Your task to perform on an android device: Open Maps and search for coffee Image 0: 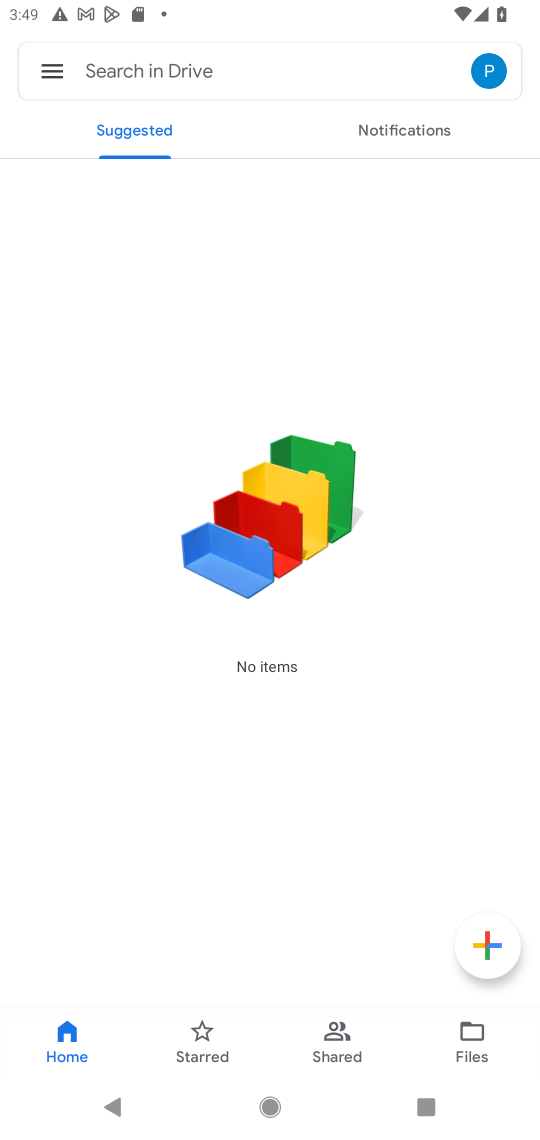
Step 0: press home button
Your task to perform on an android device: Open Maps and search for coffee Image 1: 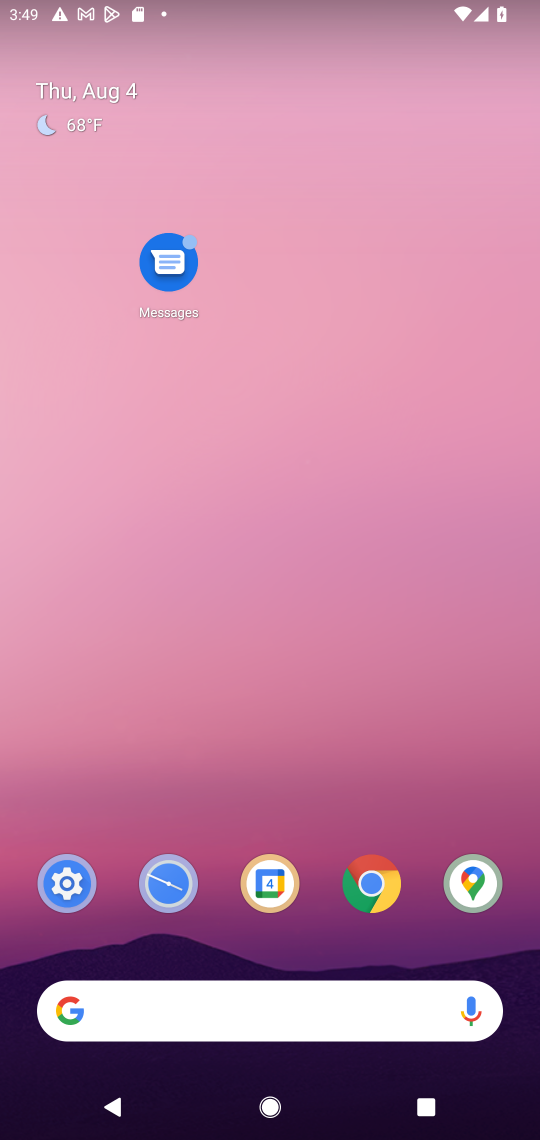
Step 1: drag from (329, 966) to (335, 143)
Your task to perform on an android device: Open Maps and search for coffee Image 2: 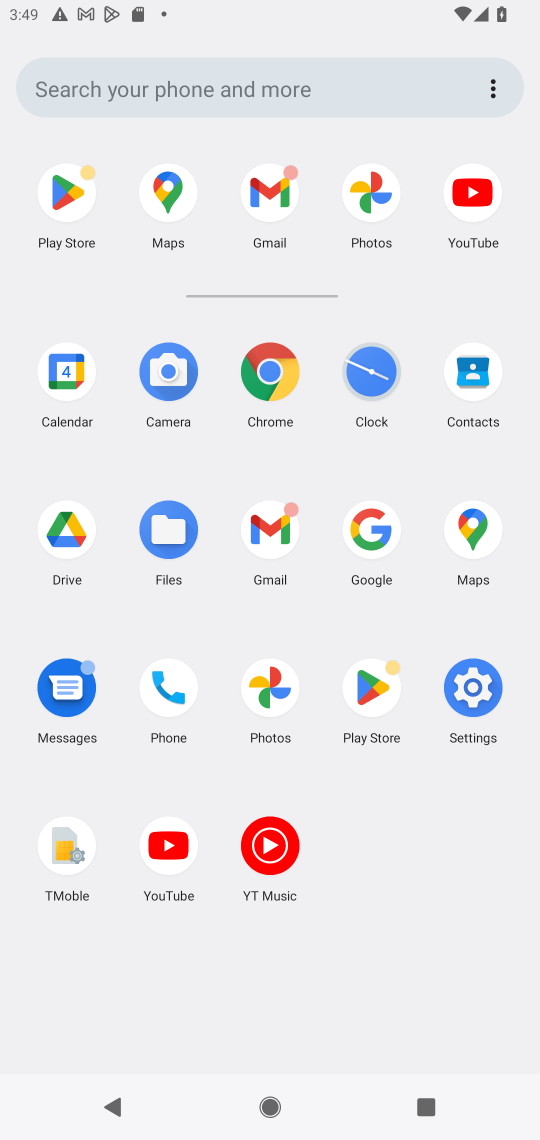
Step 2: click (475, 528)
Your task to perform on an android device: Open Maps and search for coffee Image 3: 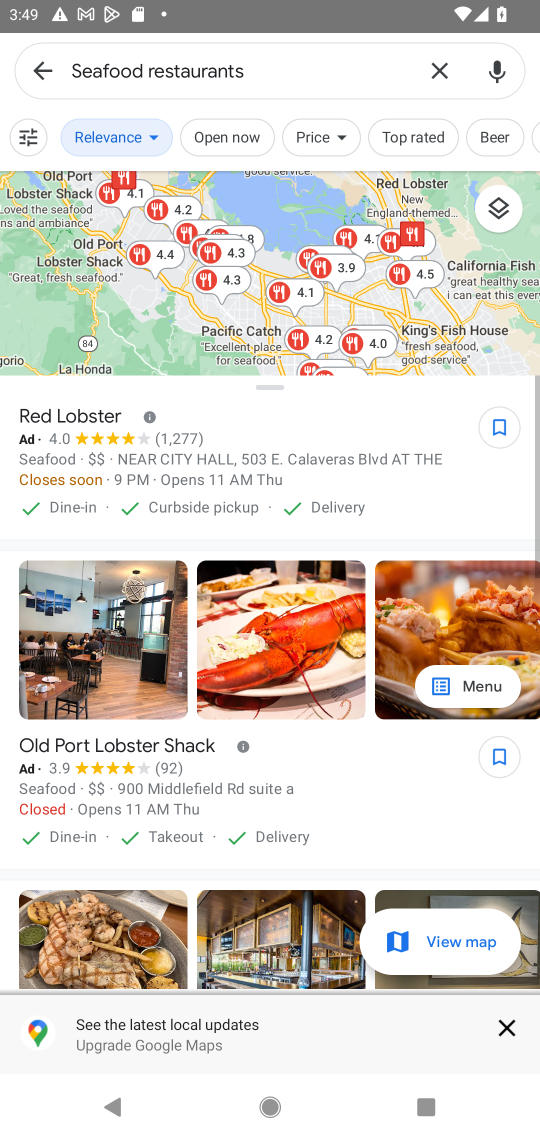
Step 3: click (433, 67)
Your task to perform on an android device: Open Maps and search for coffee Image 4: 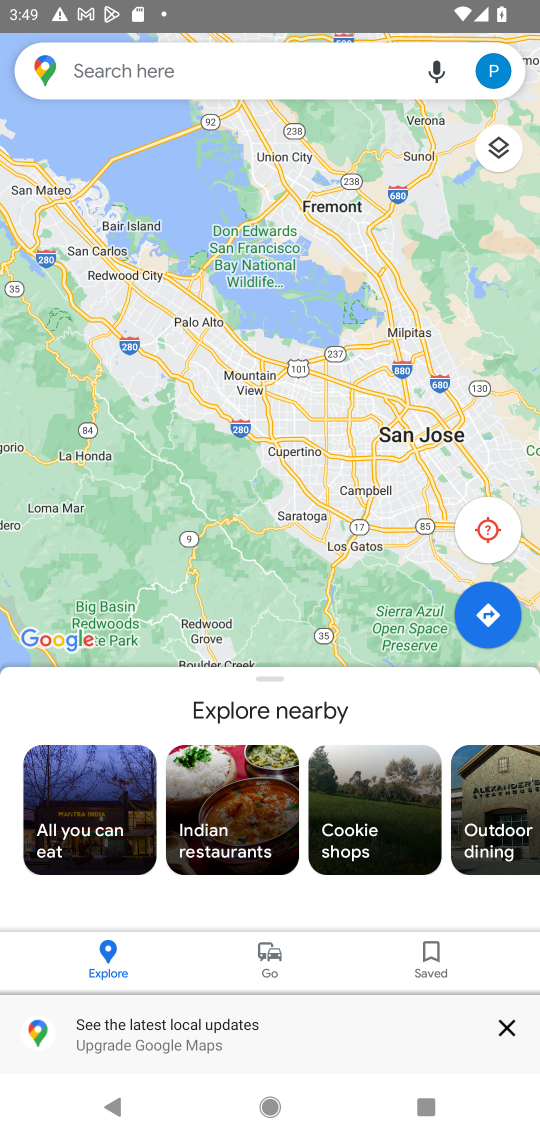
Step 4: click (277, 77)
Your task to perform on an android device: Open Maps and search for coffee Image 5: 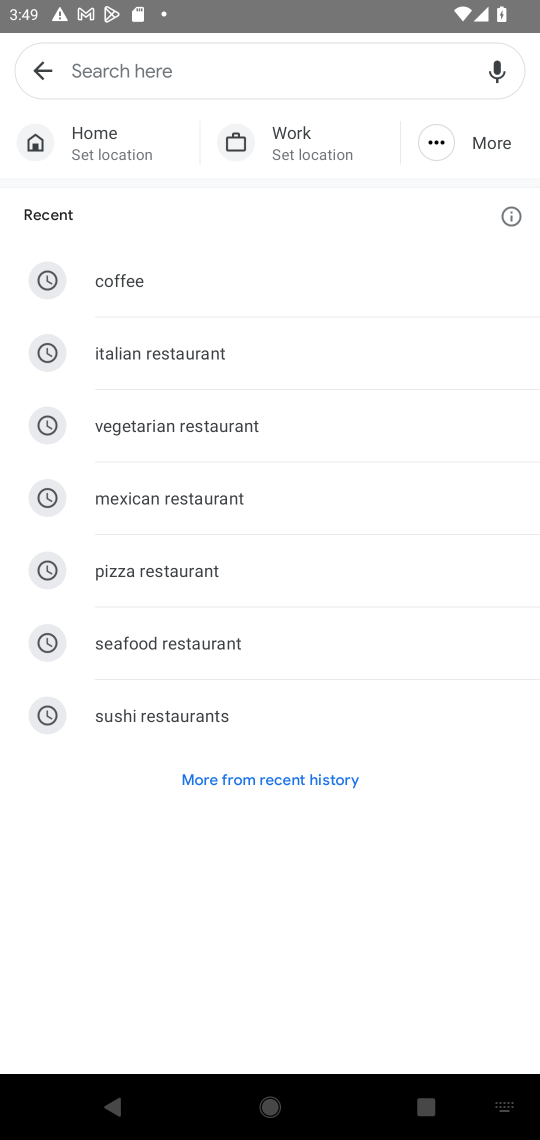
Step 5: type "Coffee"
Your task to perform on an android device: Open Maps and search for coffee Image 6: 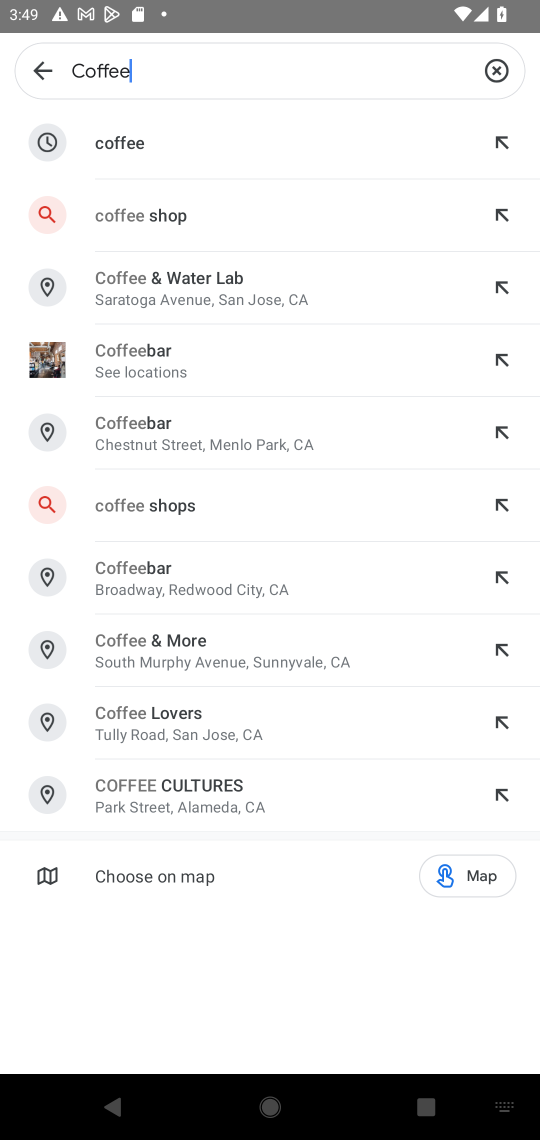
Step 6: click (125, 140)
Your task to perform on an android device: Open Maps and search for coffee Image 7: 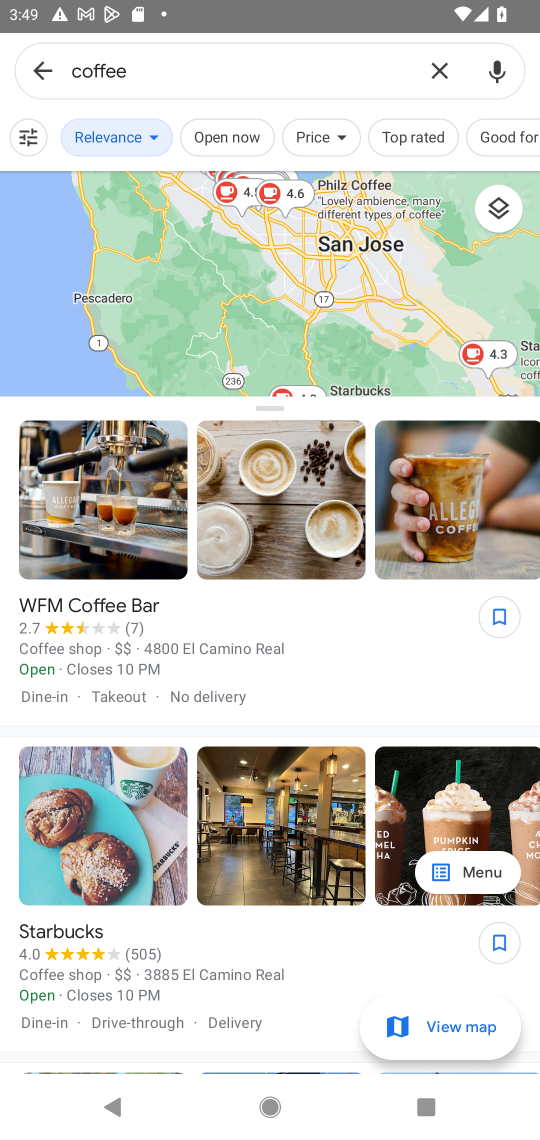
Step 7: task complete